Your task to perform on an android device: change alarm snooze length Image 0: 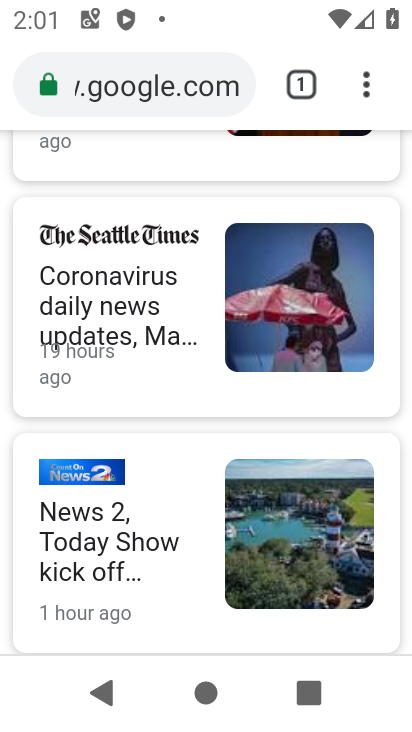
Step 0: press home button
Your task to perform on an android device: change alarm snooze length Image 1: 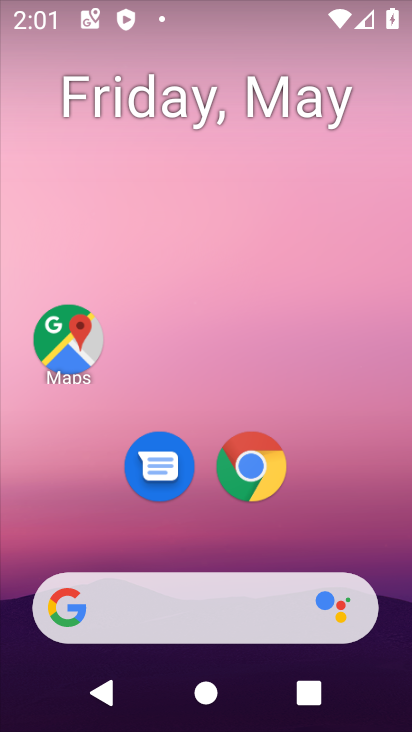
Step 1: drag from (284, 512) to (280, 80)
Your task to perform on an android device: change alarm snooze length Image 2: 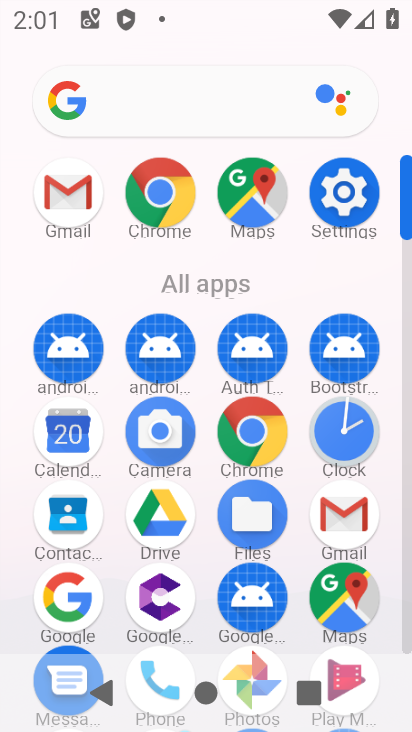
Step 2: click (332, 410)
Your task to perform on an android device: change alarm snooze length Image 3: 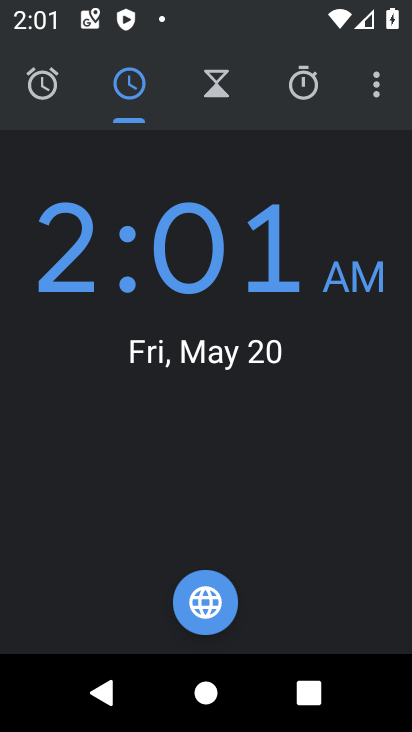
Step 3: click (375, 77)
Your task to perform on an android device: change alarm snooze length Image 4: 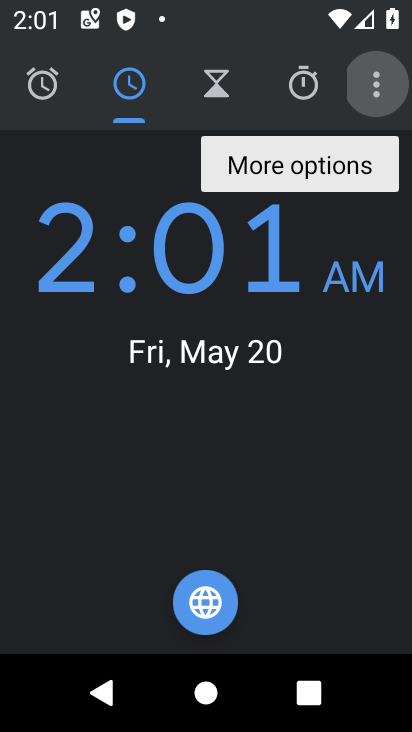
Step 4: click (375, 77)
Your task to perform on an android device: change alarm snooze length Image 5: 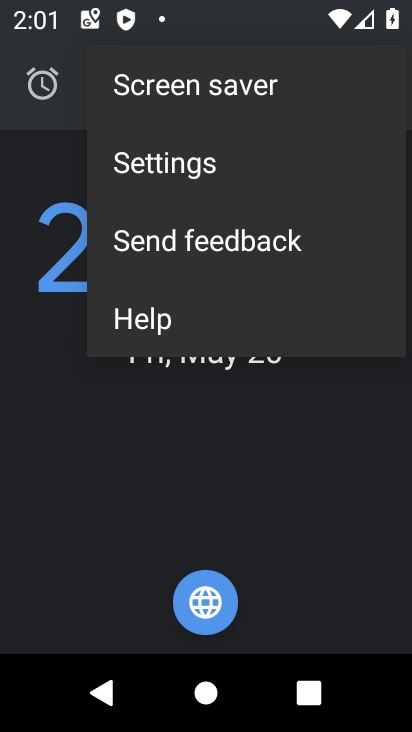
Step 5: click (217, 170)
Your task to perform on an android device: change alarm snooze length Image 6: 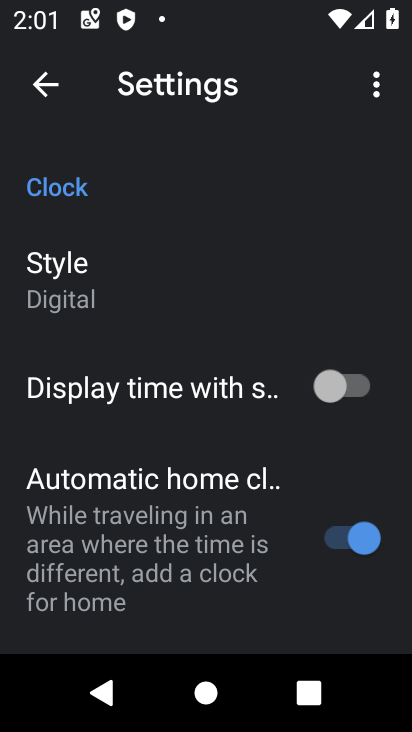
Step 6: drag from (269, 607) to (303, 340)
Your task to perform on an android device: change alarm snooze length Image 7: 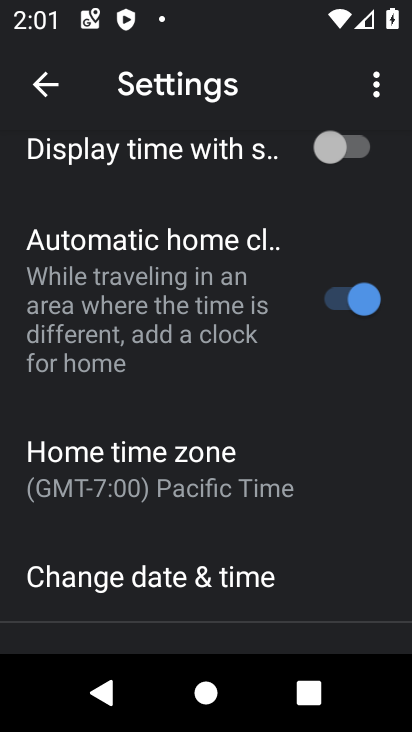
Step 7: drag from (301, 604) to (326, 260)
Your task to perform on an android device: change alarm snooze length Image 8: 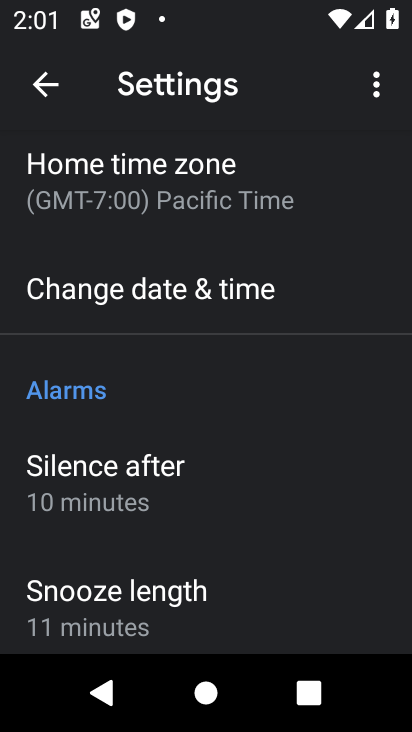
Step 8: click (67, 463)
Your task to perform on an android device: change alarm snooze length Image 9: 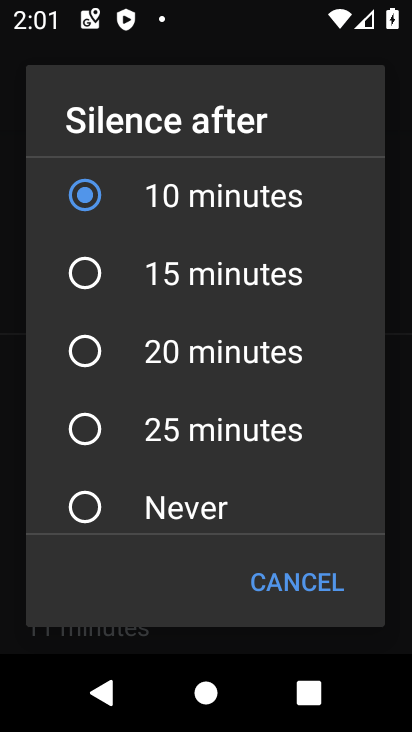
Step 9: click (83, 259)
Your task to perform on an android device: change alarm snooze length Image 10: 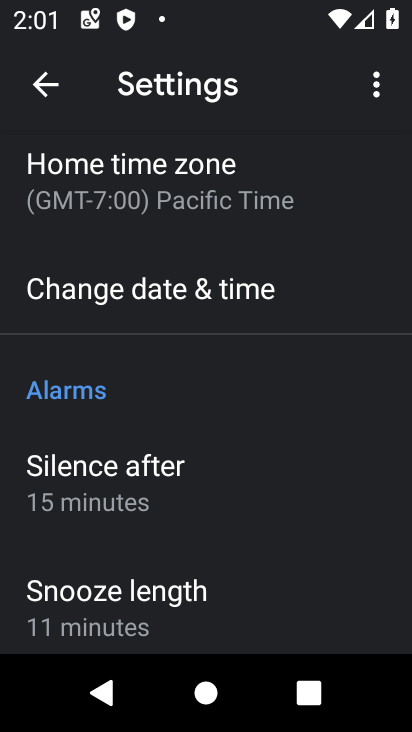
Step 10: task complete